Your task to perform on an android device: read, delete, or share a saved page in the chrome app Image 0: 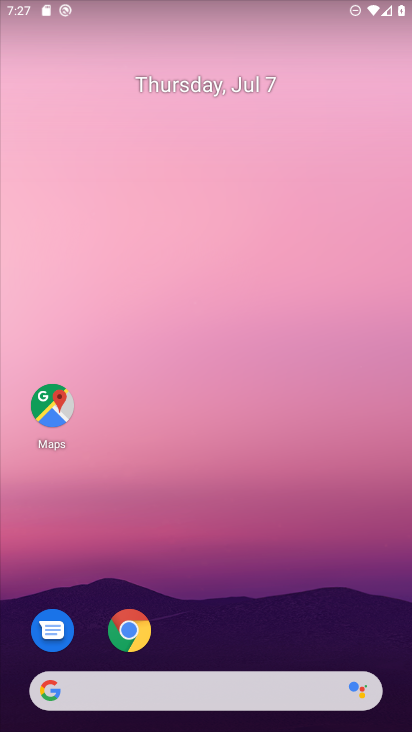
Step 0: click (129, 622)
Your task to perform on an android device: read, delete, or share a saved page in the chrome app Image 1: 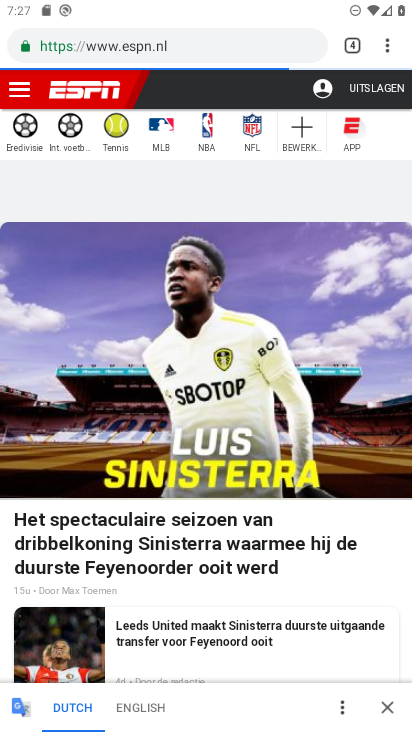
Step 1: click (387, 43)
Your task to perform on an android device: read, delete, or share a saved page in the chrome app Image 2: 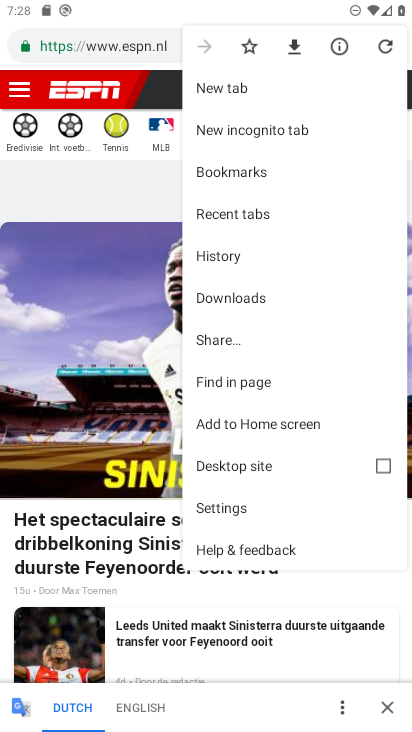
Step 2: click (225, 294)
Your task to perform on an android device: read, delete, or share a saved page in the chrome app Image 3: 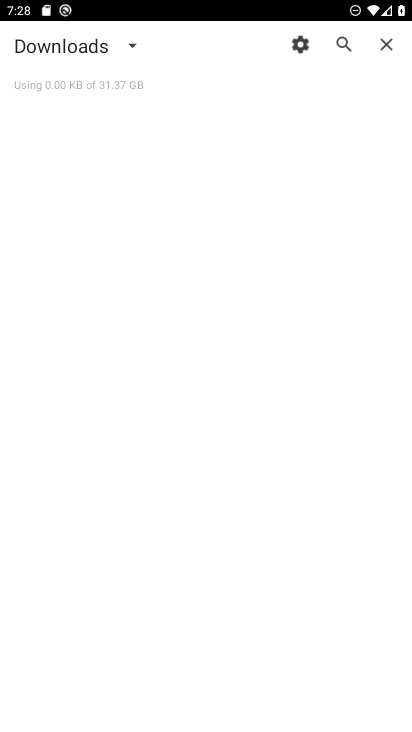
Step 3: task complete